Your task to perform on an android device: What's the news this week? Image 0: 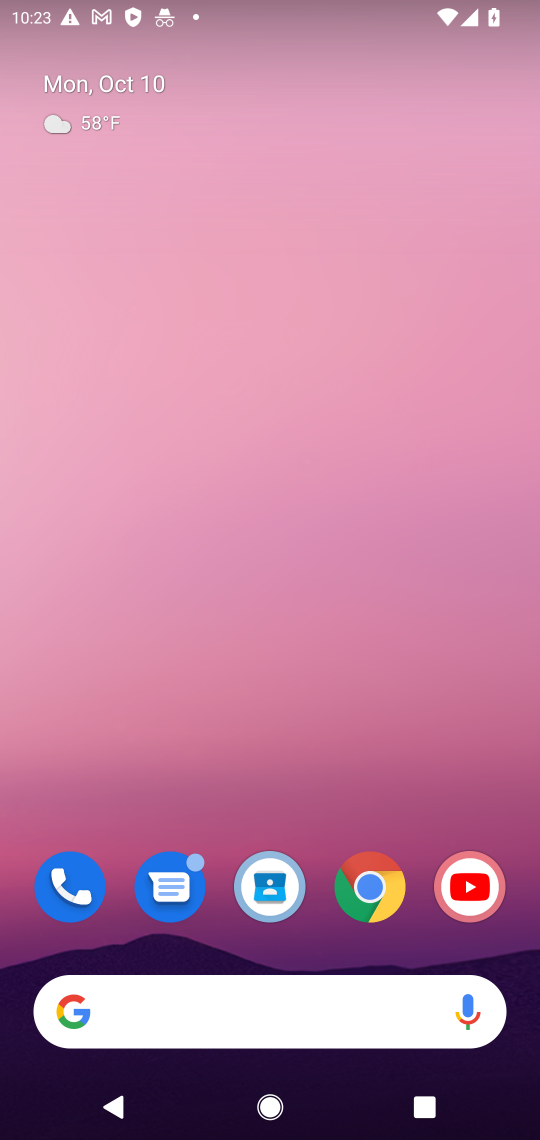
Step 0: drag from (266, 863) to (251, 323)
Your task to perform on an android device: What's the news this week? Image 1: 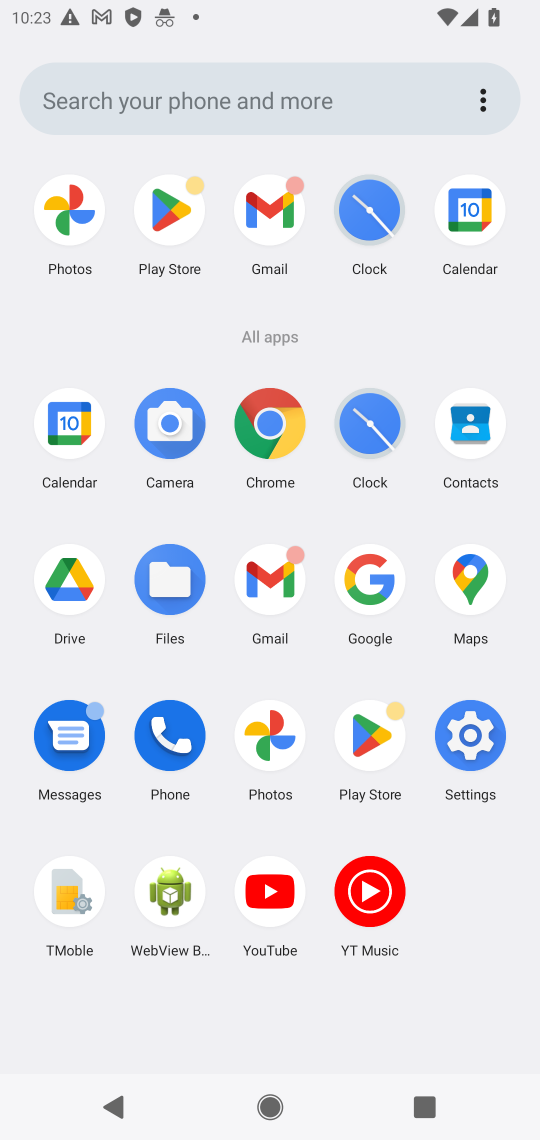
Step 1: click (371, 559)
Your task to perform on an android device: What's the news this week? Image 2: 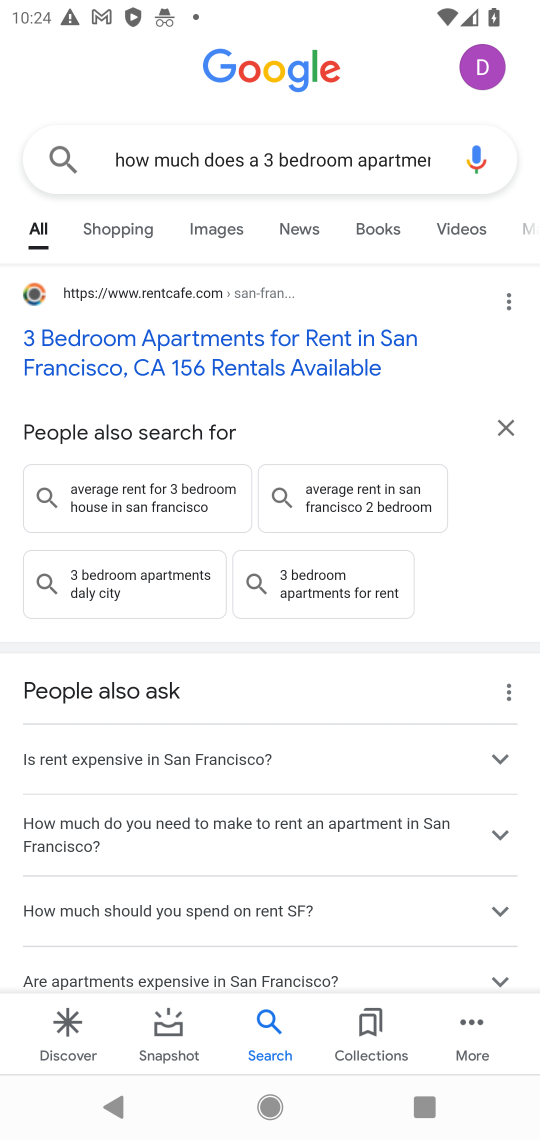
Step 2: click (240, 158)
Your task to perform on an android device: What's the news this week? Image 3: 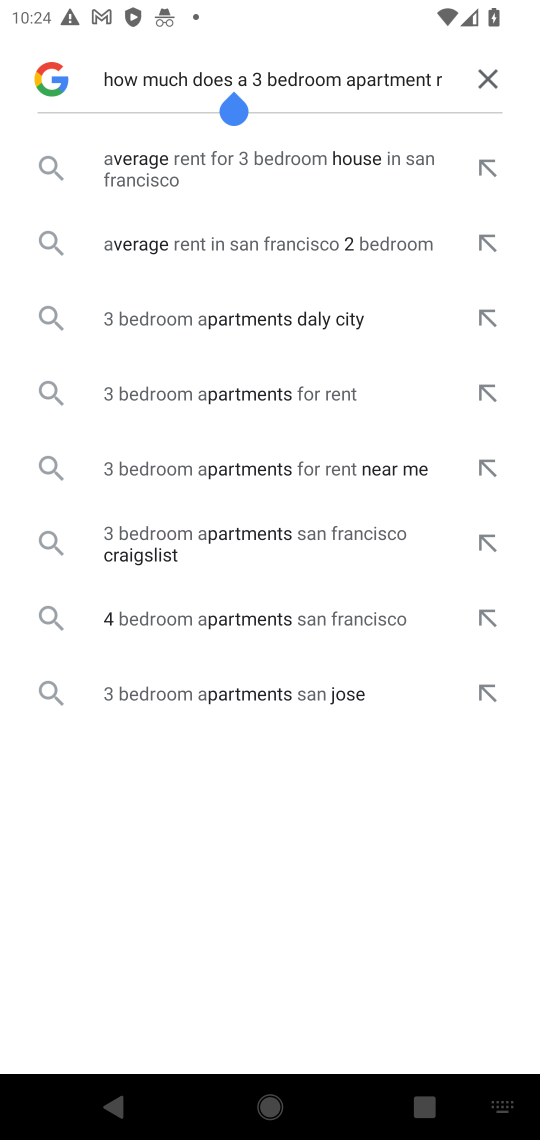
Step 3: click (487, 88)
Your task to perform on an android device: What's the news this week? Image 4: 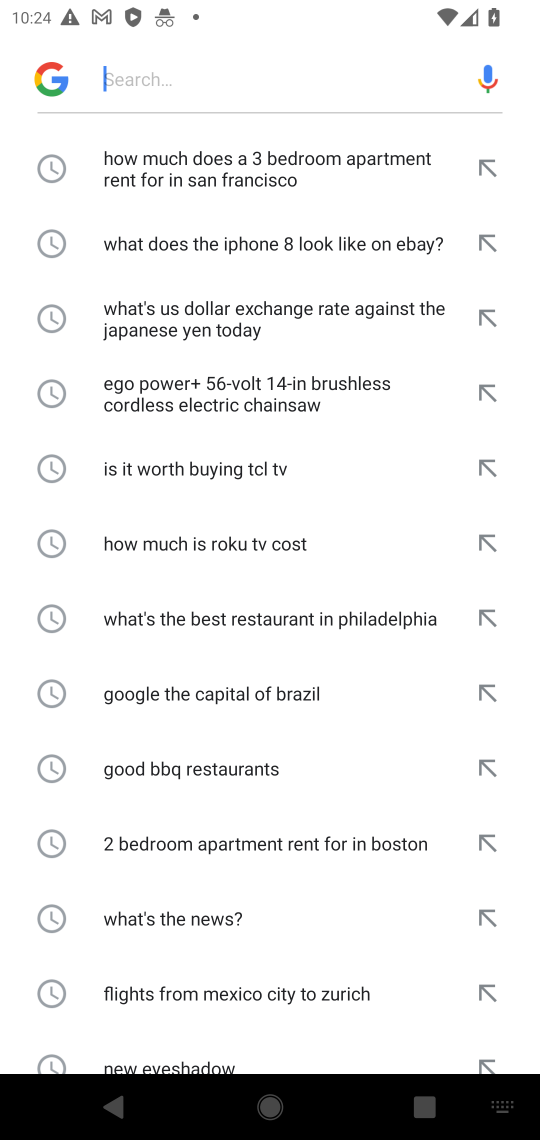
Step 4: click (244, 74)
Your task to perform on an android device: What's the news this week? Image 5: 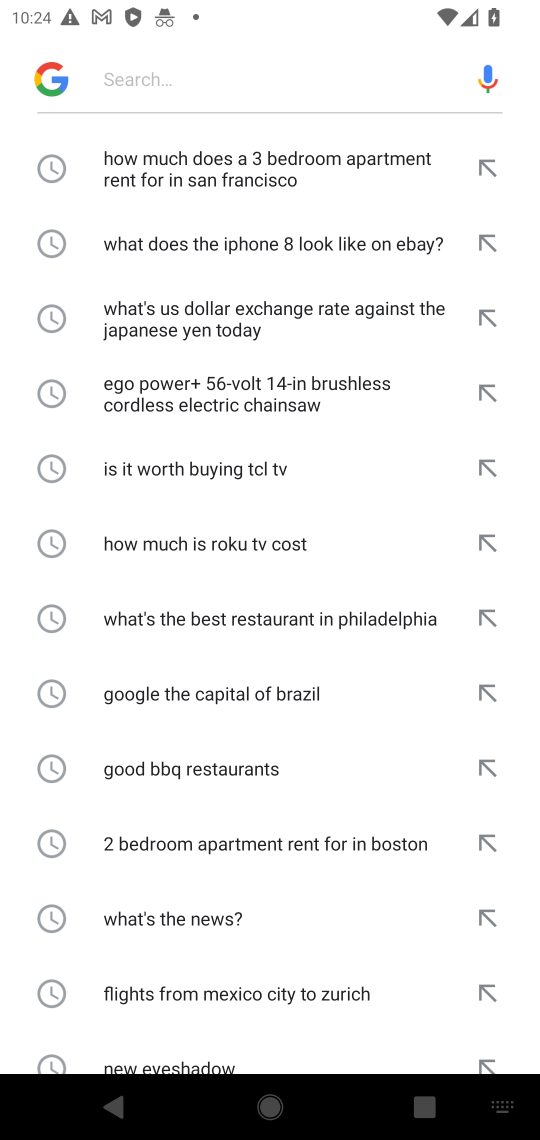
Step 5: type "What's the news this week "
Your task to perform on an android device: What's the news this week? Image 6: 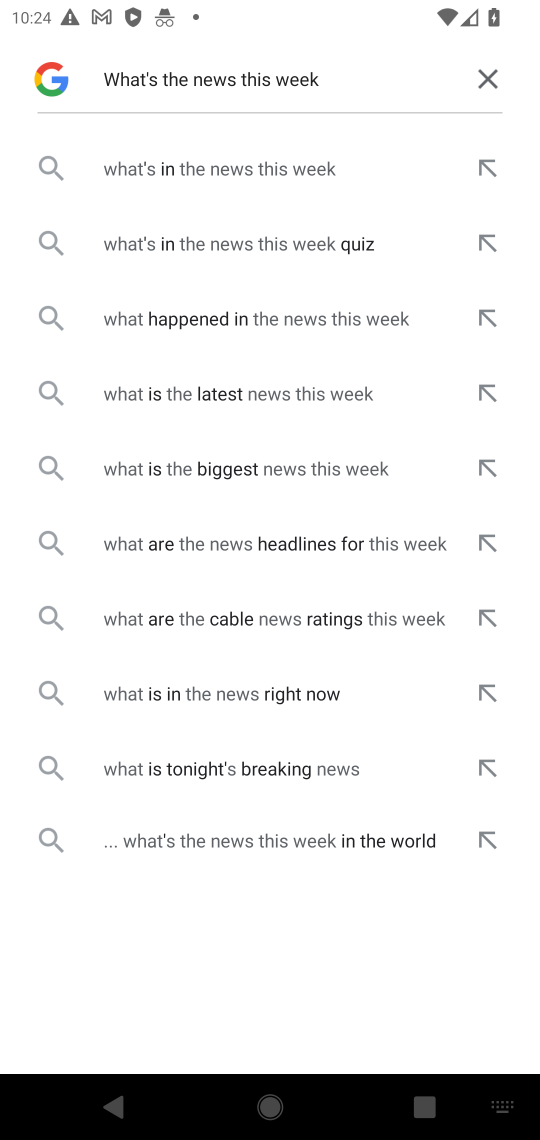
Step 6: click (173, 164)
Your task to perform on an android device: What's the news this week? Image 7: 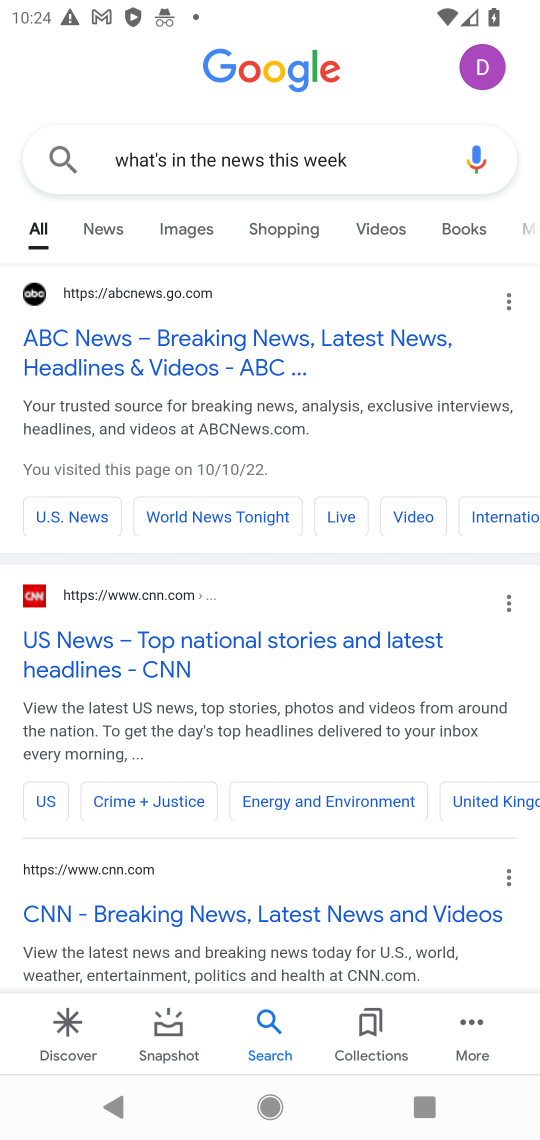
Step 7: click (175, 354)
Your task to perform on an android device: What's the news this week? Image 8: 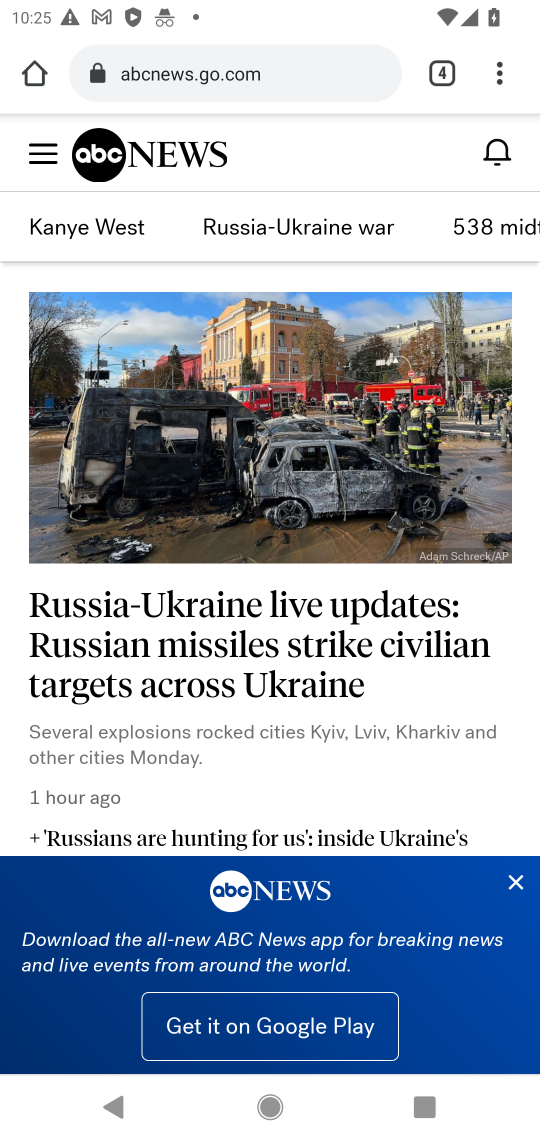
Step 8: click (515, 882)
Your task to perform on an android device: What's the news this week? Image 9: 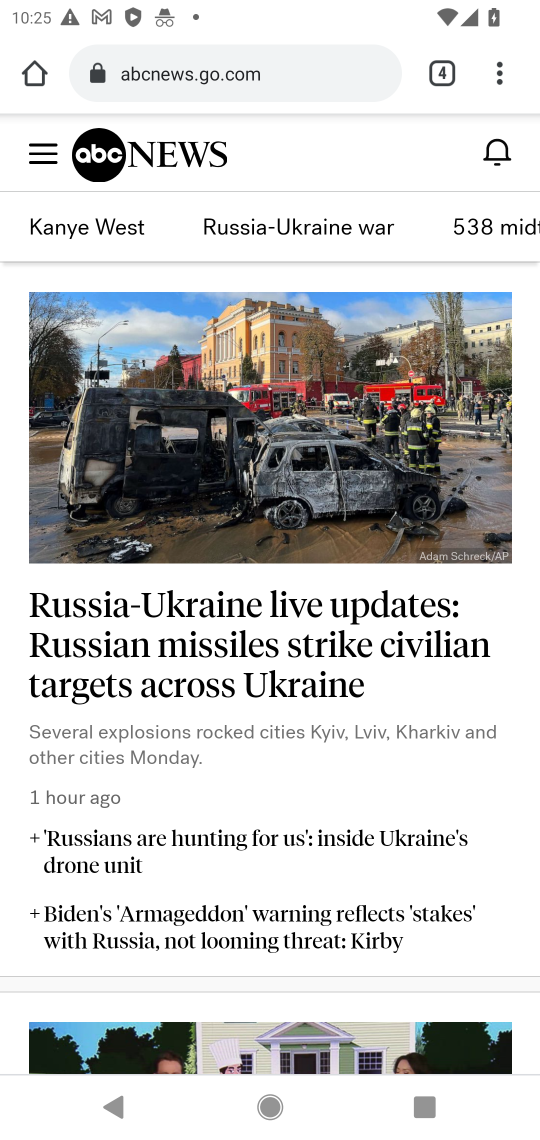
Step 9: task complete